Your task to perform on an android device: check the backup settings in the google photos Image 0: 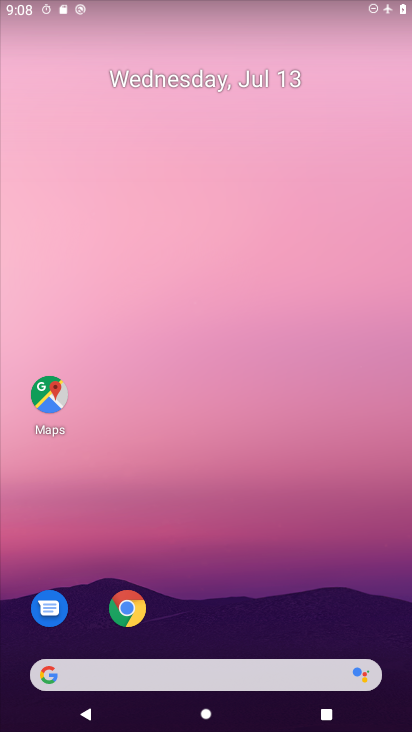
Step 0: drag from (233, 659) to (125, 340)
Your task to perform on an android device: check the backup settings in the google photos Image 1: 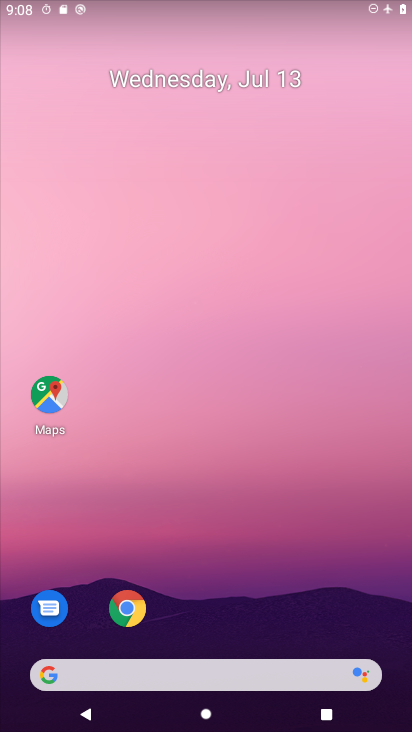
Step 1: drag from (249, 615) to (291, 242)
Your task to perform on an android device: check the backup settings in the google photos Image 2: 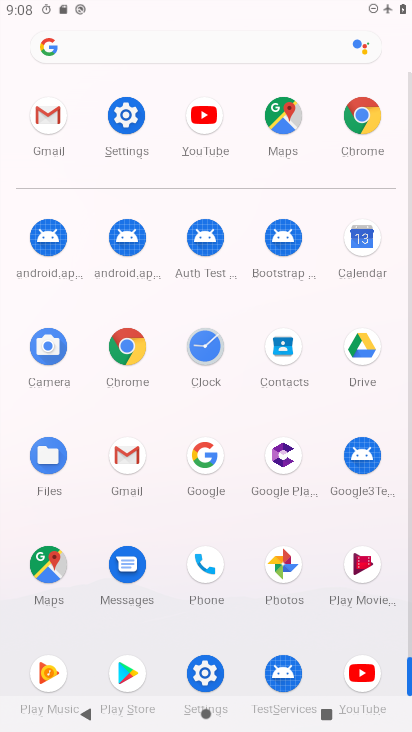
Step 2: click (284, 566)
Your task to perform on an android device: check the backup settings in the google photos Image 3: 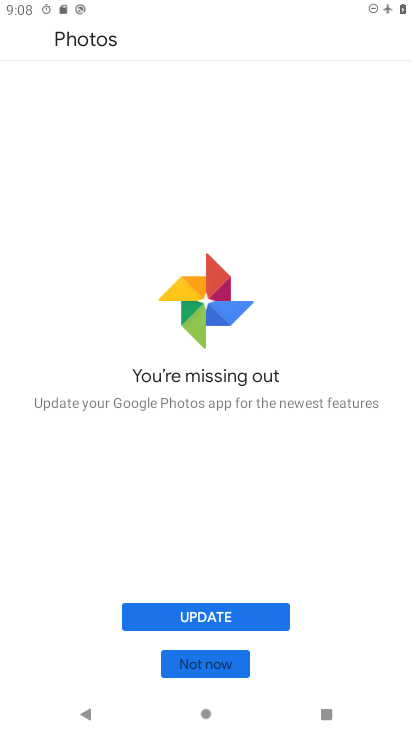
Step 3: click (204, 645)
Your task to perform on an android device: check the backup settings in the google photos Image 4: 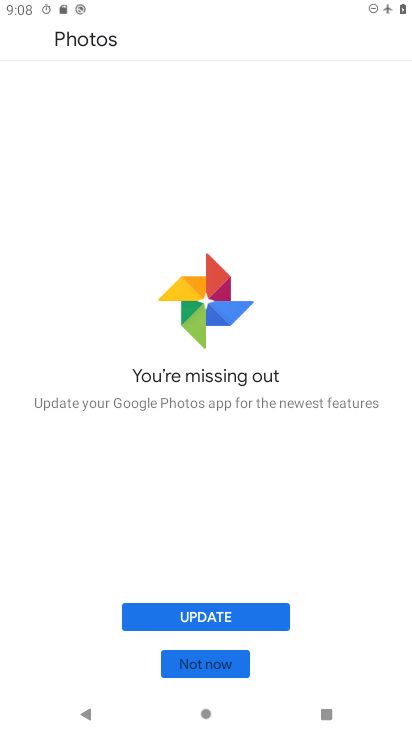
Step 4: click (203, 672)
Your task to perform on an android device: check the backup settings in the google photos Image 5: 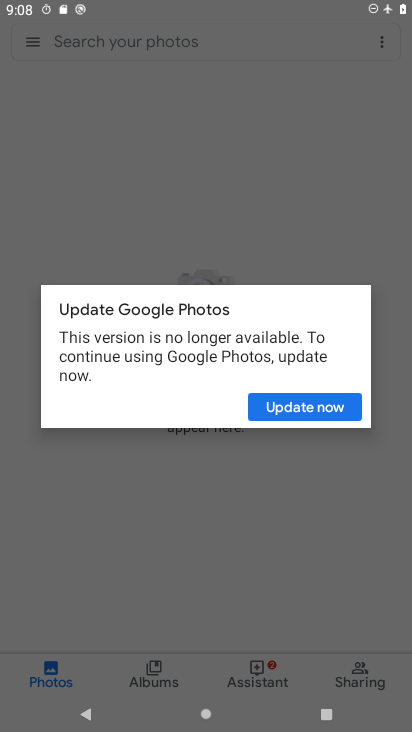
Step 5: click (291, 415)
Your task to perform on an android device: check the backup settings in the google photos Image 6: 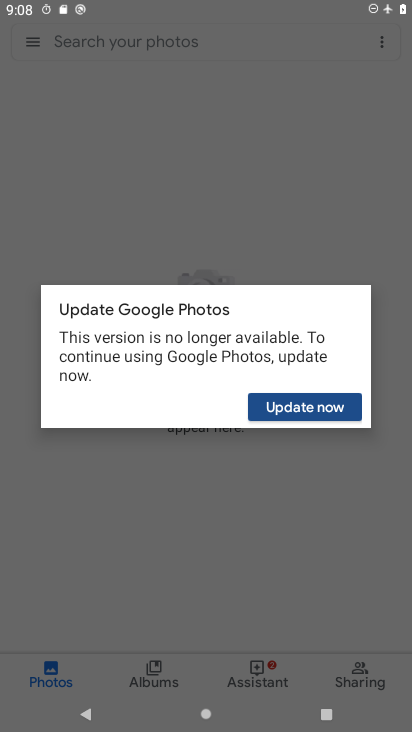
Step 6: click (293, 415)
Your task to perform on an android device: check the backup settings in the google photos Image 7: 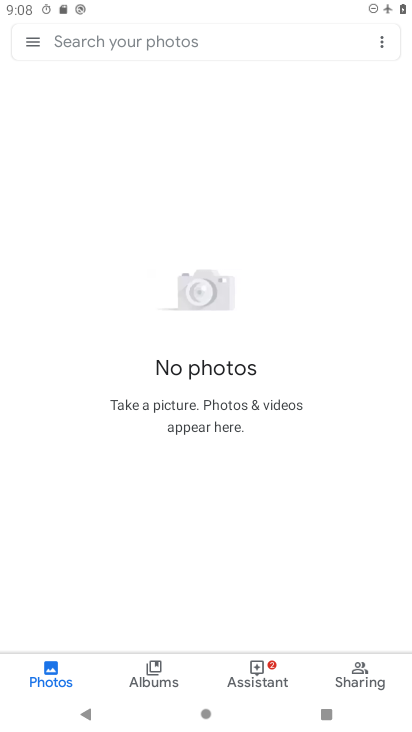
Step 7: click (298, 416)
Your task to perform on an android device: check the backup settings in the google photos Image 8: 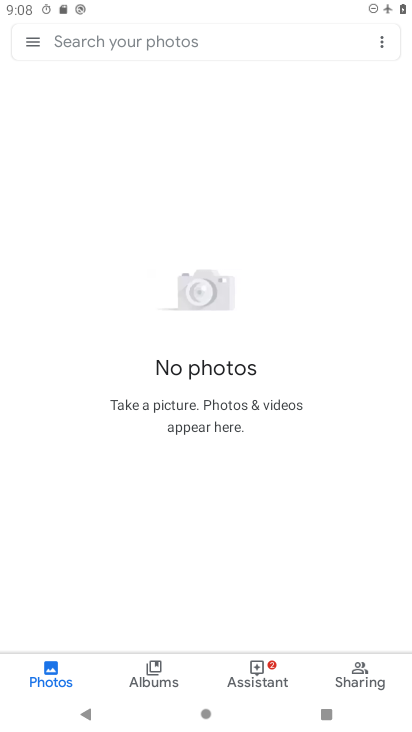
Step 8: task complete